Your task to perform on an android device: move a message to another label in the gmail app Image 0: 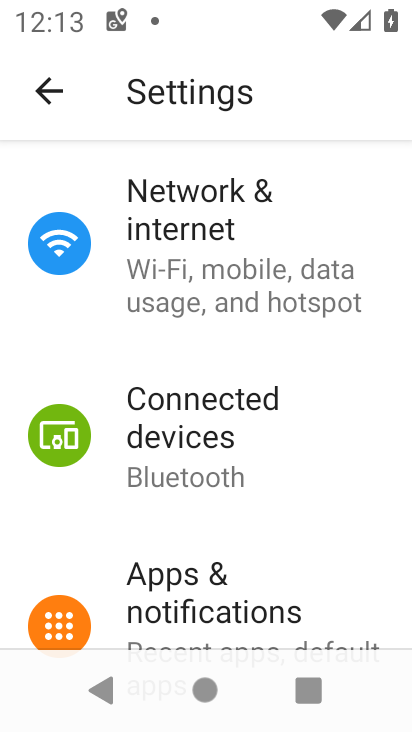
Step 0: press home button
Your task to perform on an android device: move a message to another label in the gmail app Image 1: 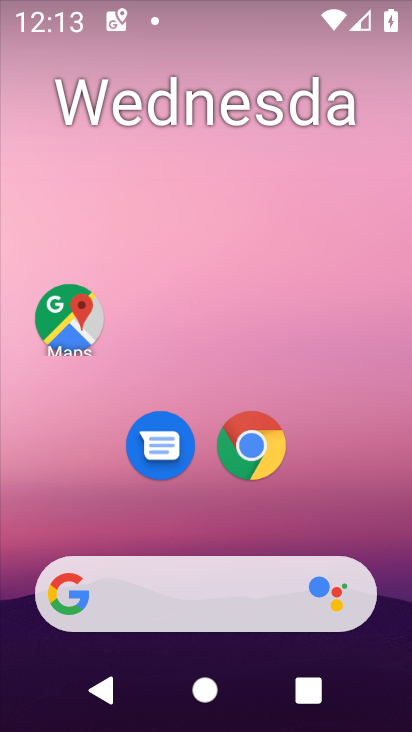
Step 1: drag from (234, 712) to (196, 96)
Your task to perform on an android device: move a message to another label in the gmail app Image 2: 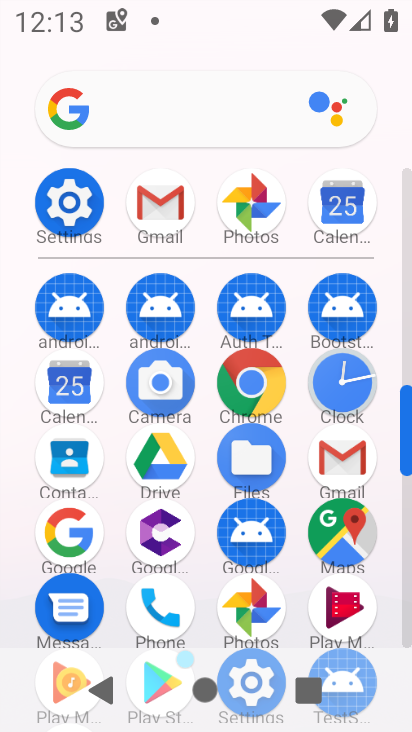
Step 2: click (337, 450)
Your task to perform on an android device: move a message to another label in the gmail app Image 3: 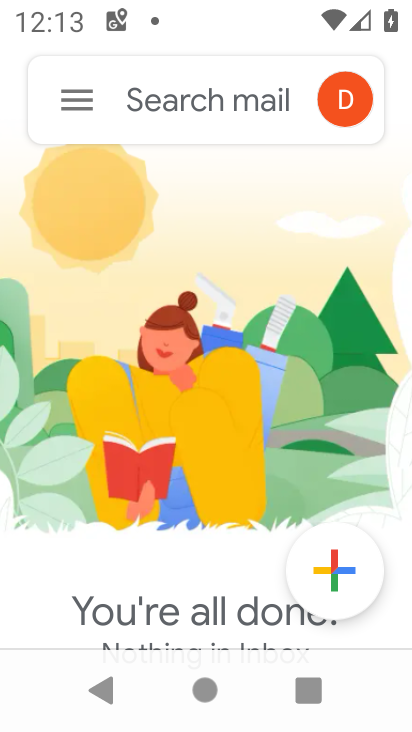
Step 3: task complete